Your task to perform on an android device: toggle wifi Image 0: 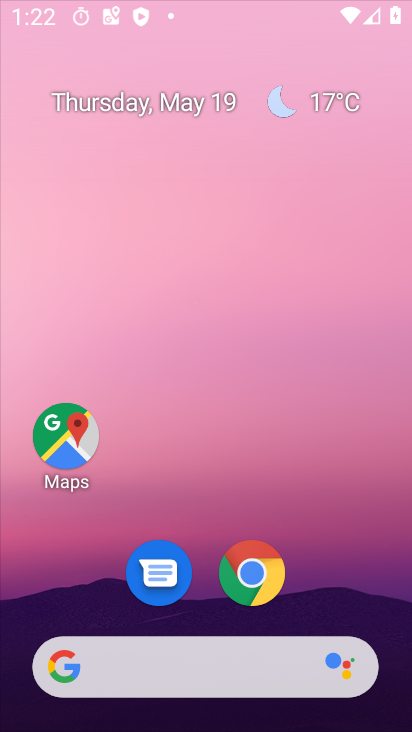
Step 0: click (334, 21)
Your task to perform on an android device: toggle wifi Image 1: 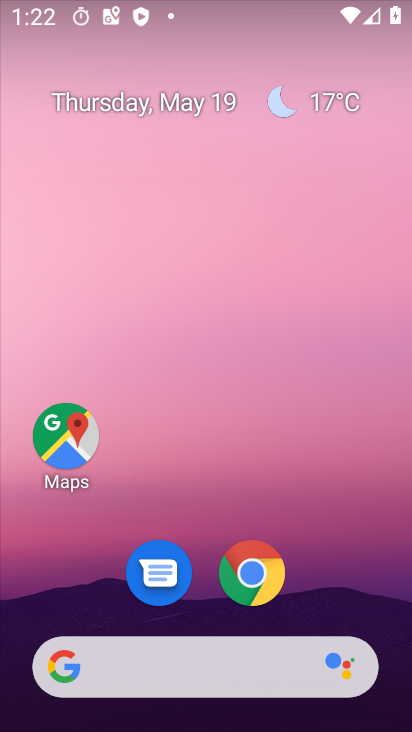
Step 1: drag from (96, 10) to (118, 463)
Your task to perform on an android device: toggle wifi Image 2: 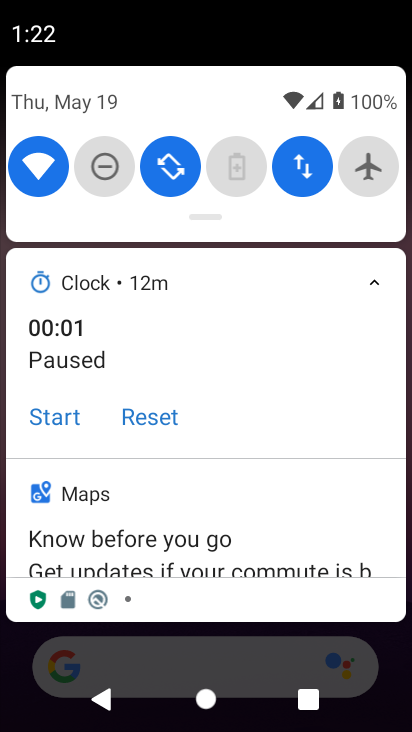
Step 2: click (36, 175)
Your task to perform on an android device: toggle wifi Image 3: 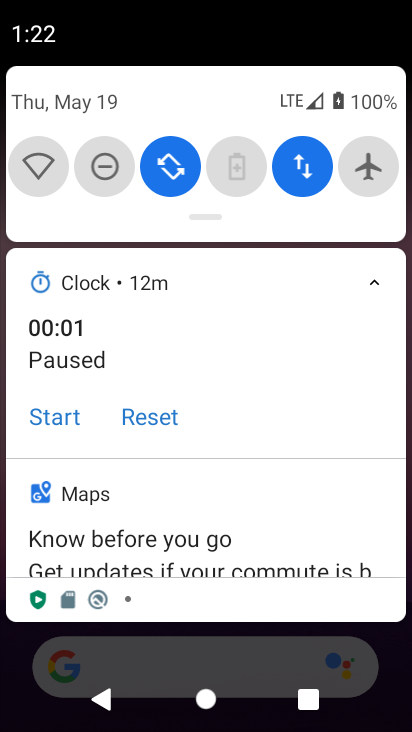
Step 3: task complete